Your task to perform on an android device: change your default location settings in chrome Image 0: 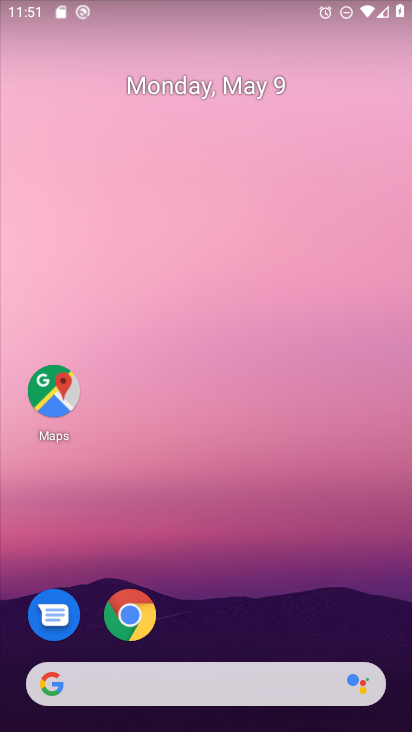
Step 0: drag from (249, 717) to (401, 235)
Your task to perform on an android device: change your default location settings in chrome Image 1: 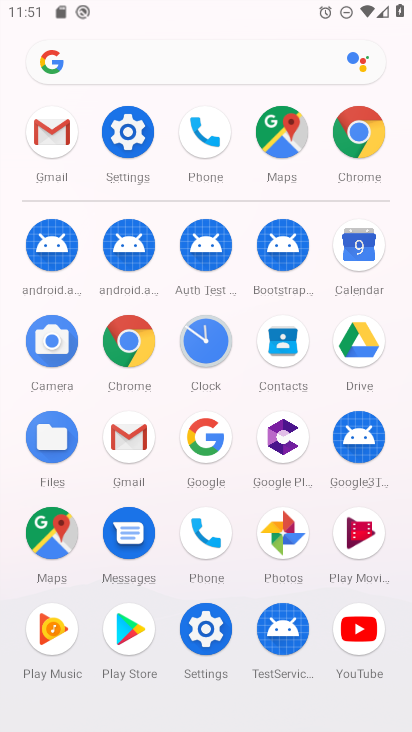
Step 1: click (372, 142)
Your task to perform on an android device: change your default location settings in chrome Image 2: 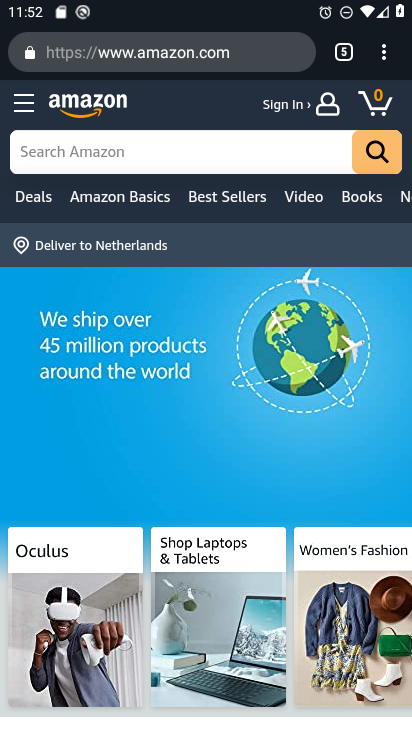
Step 2: click (376, 59)
Your task to perform on an android device: change your default location settings in chrome Image 3: 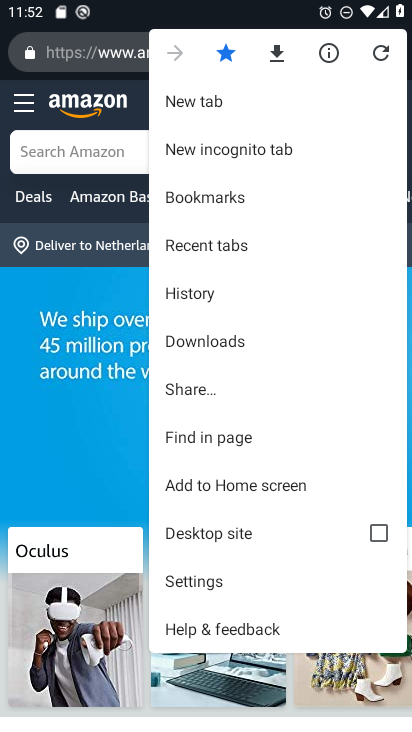
Step 3: click (222, 582)
Your task to perform on an android device: change your default location settings in chrome Image 4: 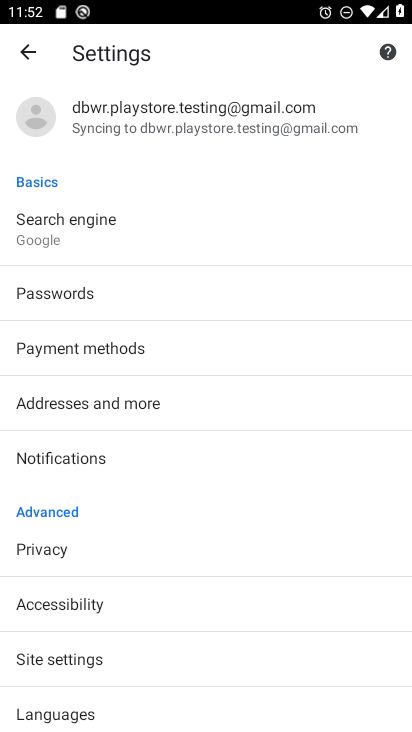
Step 4: task complete